Your task to perform on an android device: open app "Google Drive" (install if not already installed) Image 0: 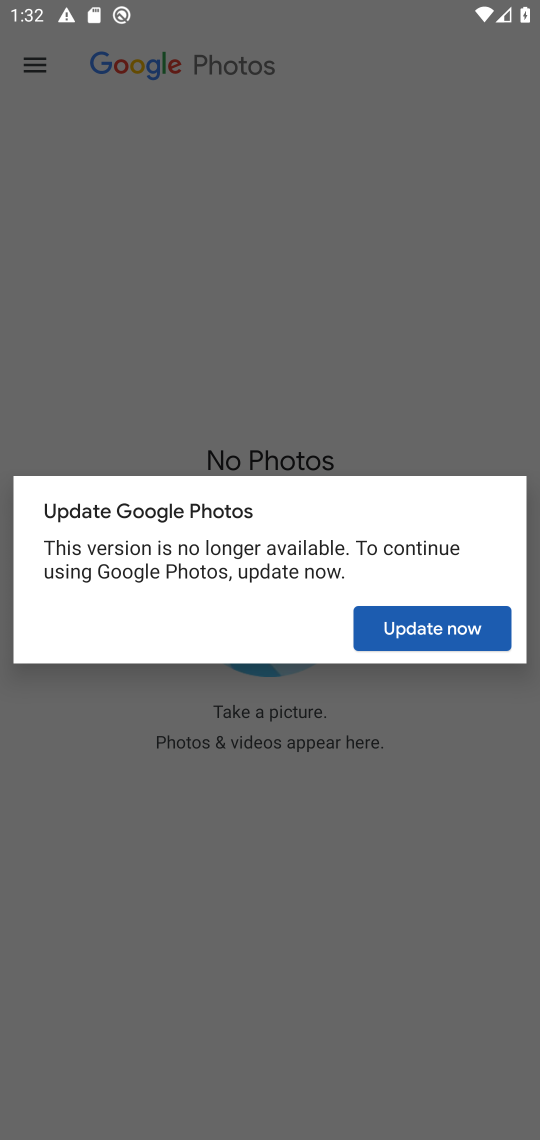
Step 0: press home button
Your task to perform on an android device: open app "Google Drive" (install if not already installed) Image 1: 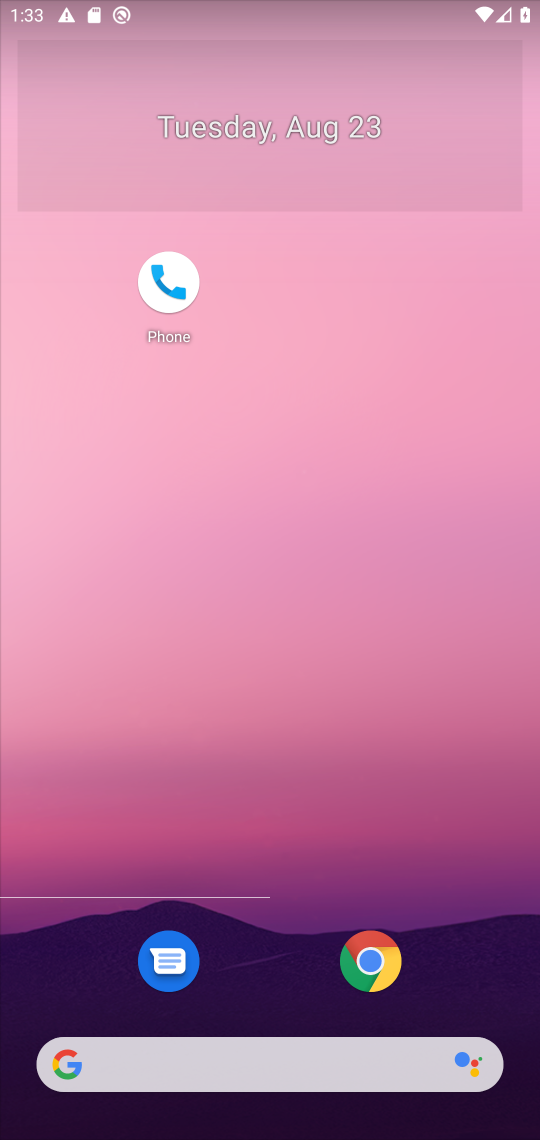
Step 1: drag from (250, 932) to (275, 147)
Your task to perform on an android device: open app "Google Drive" (install if not already installed) Image 2: 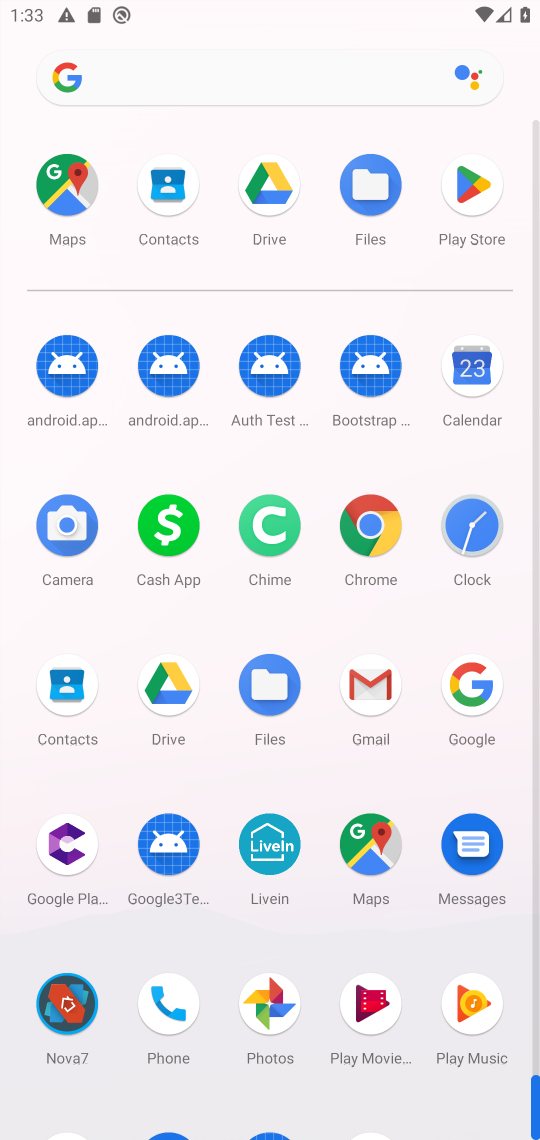
Step 2: click (265, 223)
Your task to perform on an android device: open app "Google Drive" (install if not already installed) Image 3: 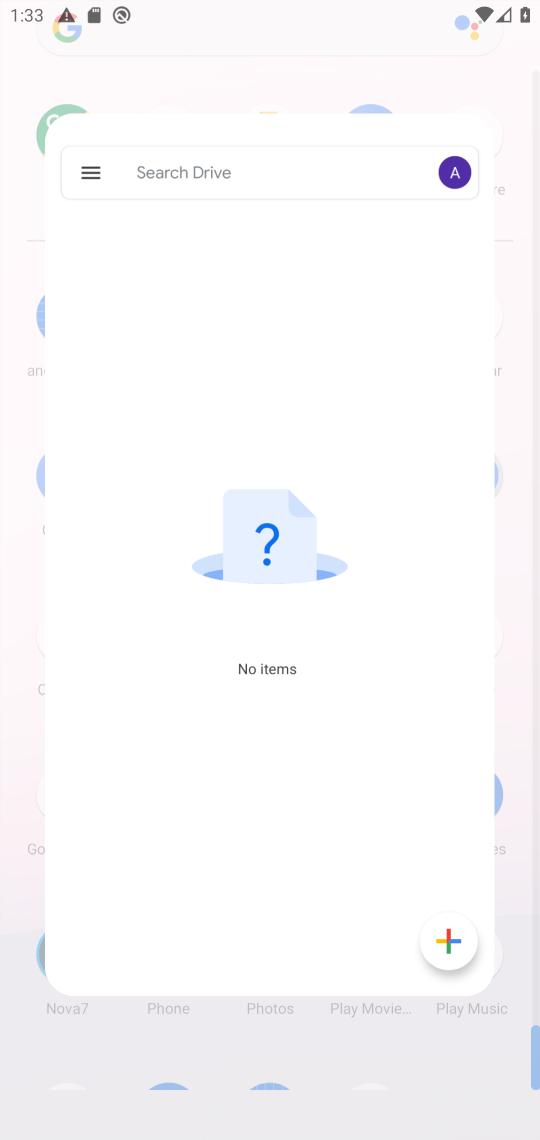
Step 3: task complete